Your task to perform on an android device: Open Chrome and go to settings Image 0: 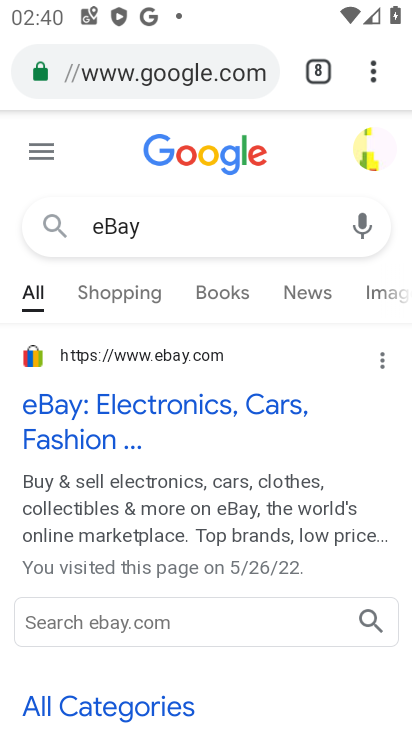
Step 0: click (378, 65)
Your task to perform on an android device: Open Chrome and go to settings Image 1: 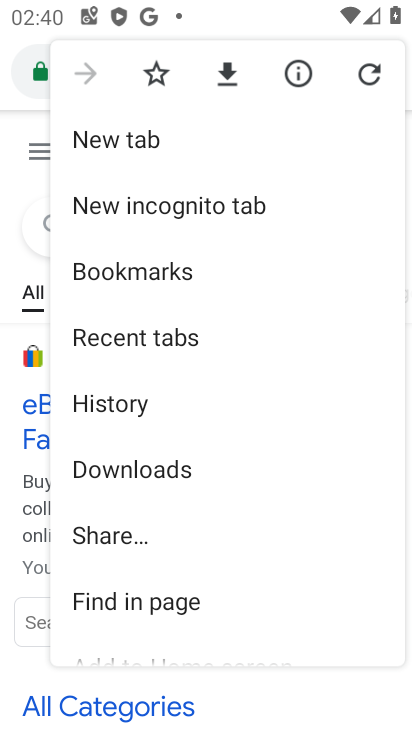
Step 1: drag from (182, 592) to (239, 286)
Your task to perform on an android device: Open Chrome and go to settings Image 2: 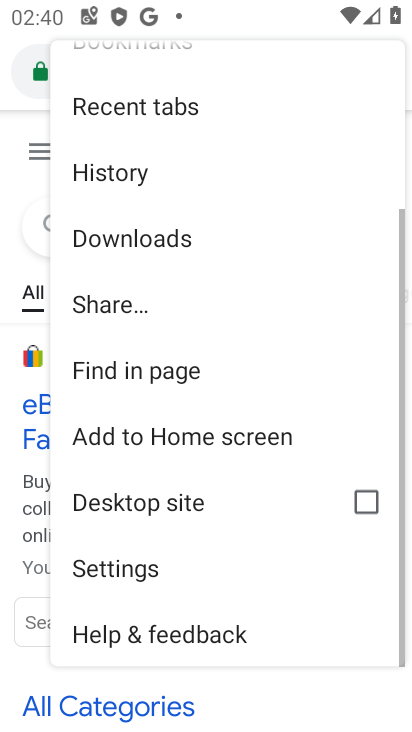
Step 2: click (155, 571)
Your task to perform on an android device: Open Chrome and go to settings Image 3: 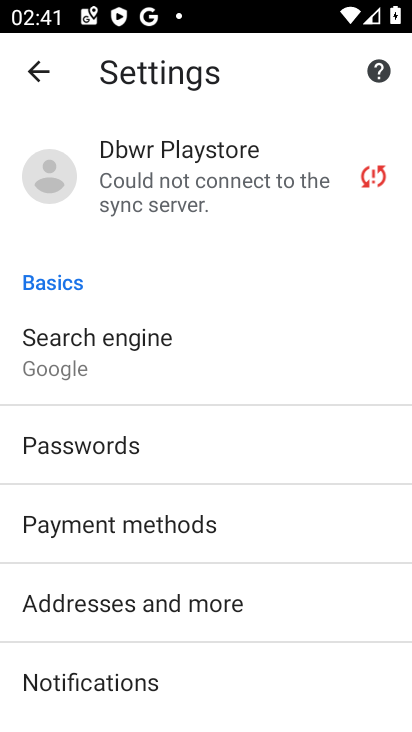
Step 3: task complete